Your task to perform on an android device: turn off notifications settings in the gmail app Image 0: 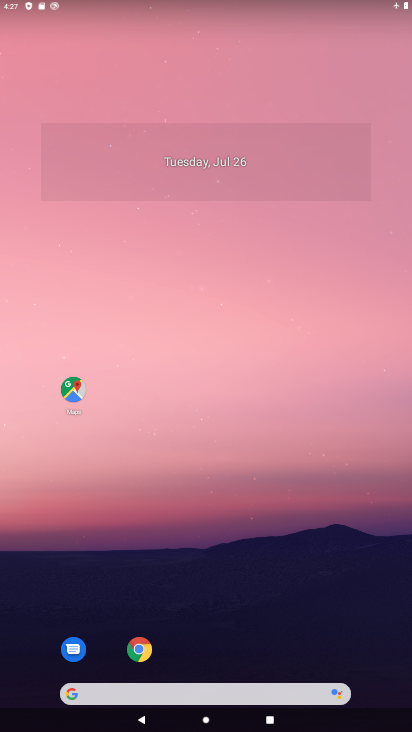
Step 0: drag from (204, 620) to (257, 113)
Your task to perform on an android device: turn off notifications settings in the gmail app Image 1: 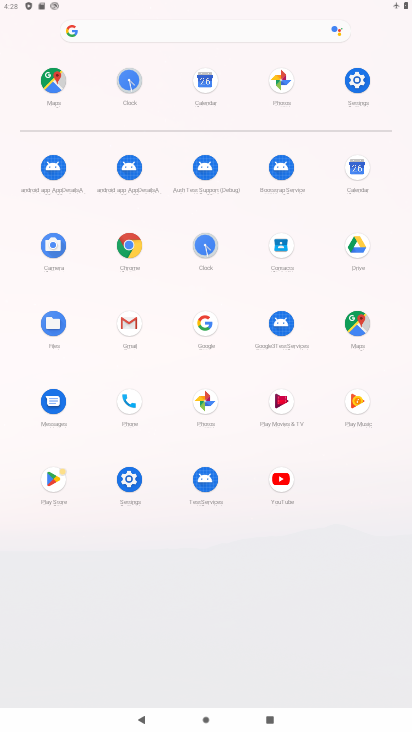
Step 1: click (139, 326)
Your task to perform on an android device: turn off notifications settings in the gmail app Image 2: 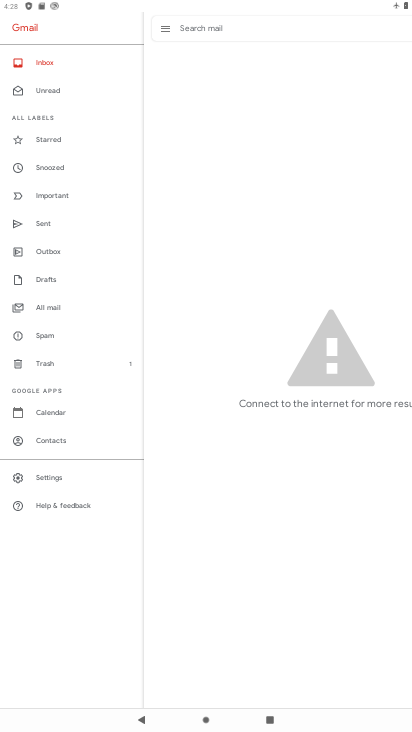
Step 2: click (38, 472)
Your task to perform on an android device: turn off notifications settings in the gmail app Image 3: 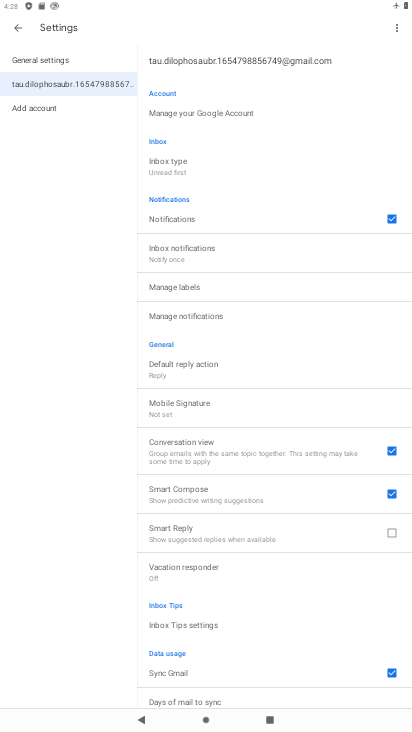
Step 3: click (190, 320)
Your task to perform on an android device: turn off notifications settings in the gmail app Image 4: 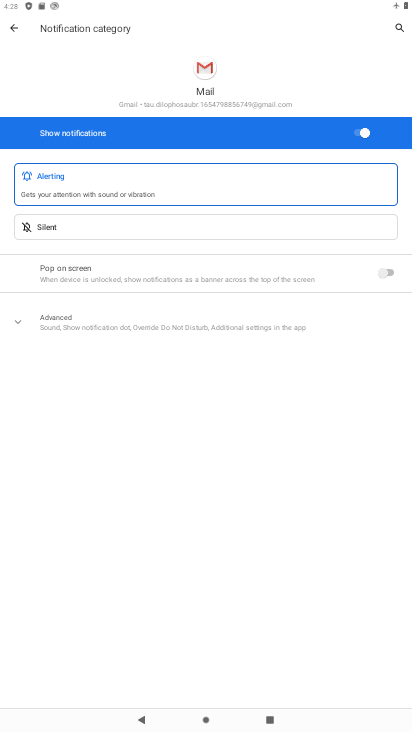
Step 4: click (360, 135)
Your task to perform on an android device: turn off notifications settings in the gmail app Image 5: 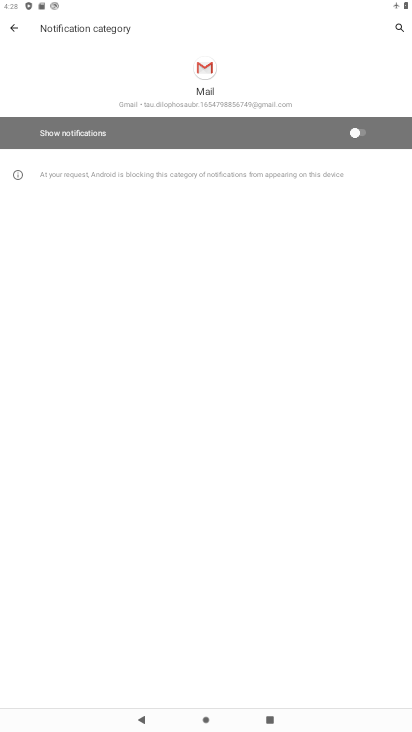
Step 5: task complete